Your task to perform on an android device: Open privacy settings Image 0: 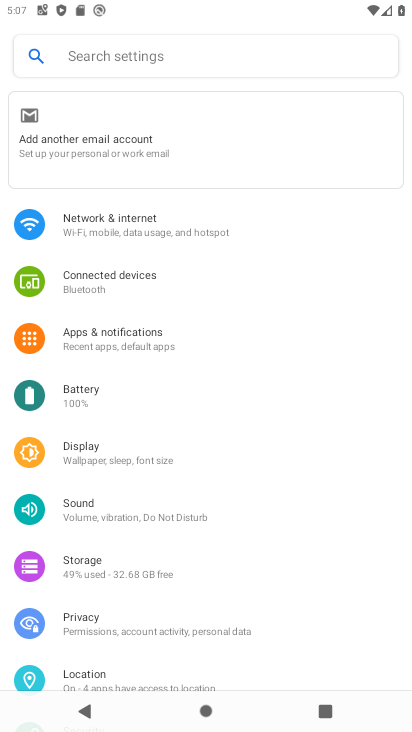
Step 0: click (116, 626)
Your task to perform on an android device: Open privacy settings Image 1: 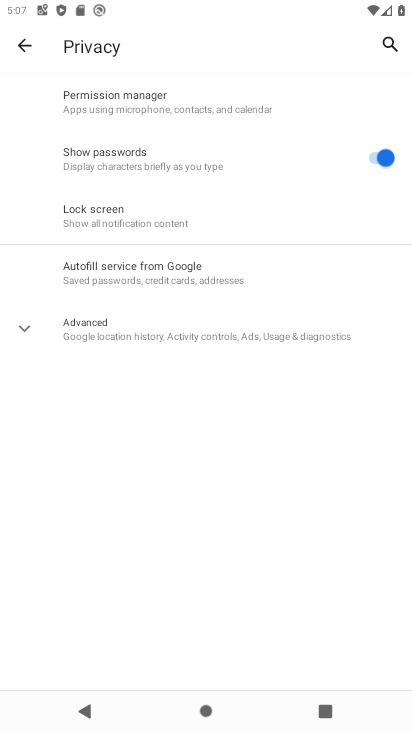
Step 1: task complete